Your task to perform on an android device: turn off smart reply in the gmail app Image 0: 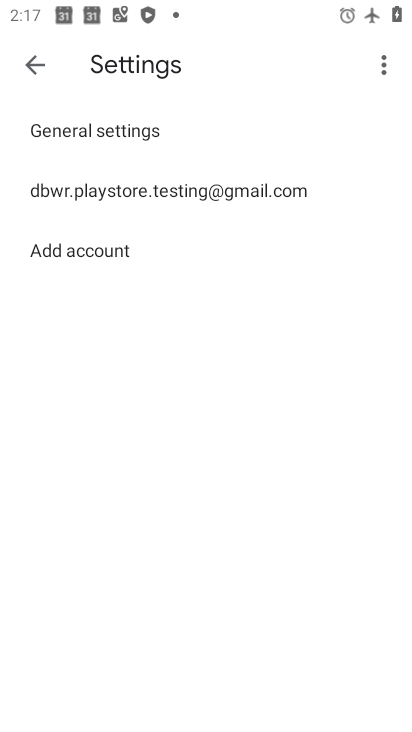
Step 0: click (201, 187)
Your task to perform on an android device: turn off smart reply in the gmail app Image 1: 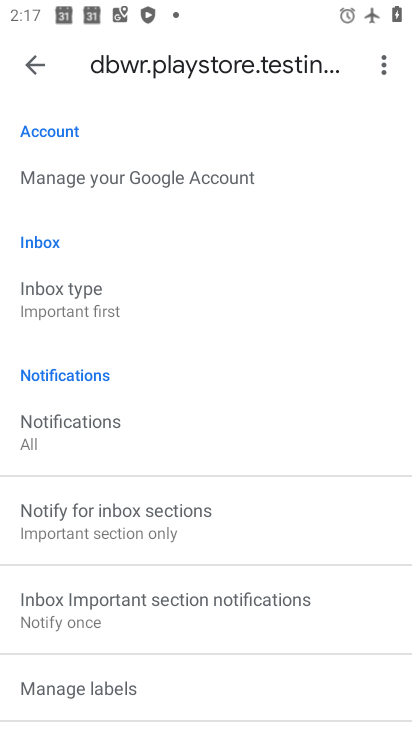
Step 1: task complete